Your task to perform on an android device: View the shopping cart on ebay. Image 0: 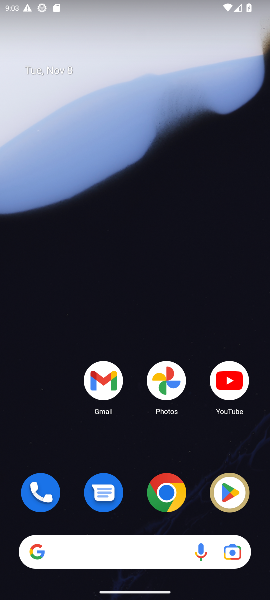
Step 0: click (177, 499)
Your task to perform on an android device: View the shopping cart on ebay. Image 1: 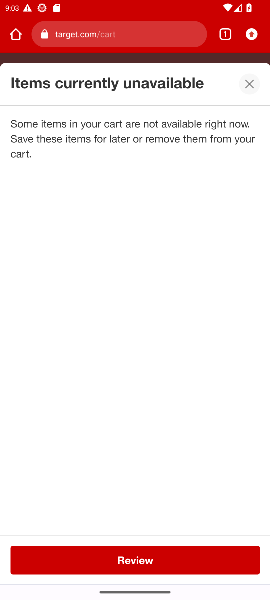
Step 1: click (113, 27)
Your task to perform on an android device: View the shopping cart on ebay. Image 2: 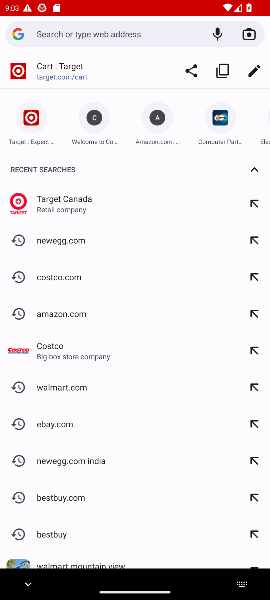
Step 2: click (57, 420)
Your task to perform on an android device: View the shopping cart on ebay. Image 3: 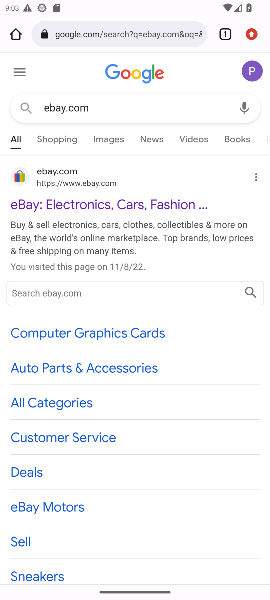
Step 3: click (85, 181)
Your task to perform on an android device: View the shopping cart on ebay. Image 4: 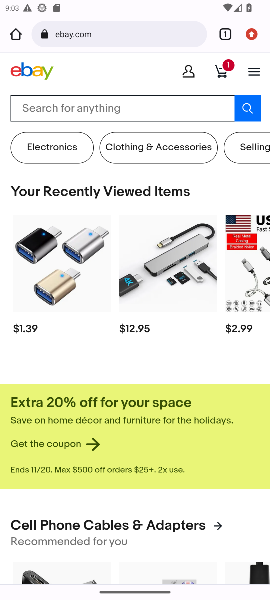
Step 4: click (221, 72)
Your task to perform on an android device: View the shopping cart on ebay. Image 5: 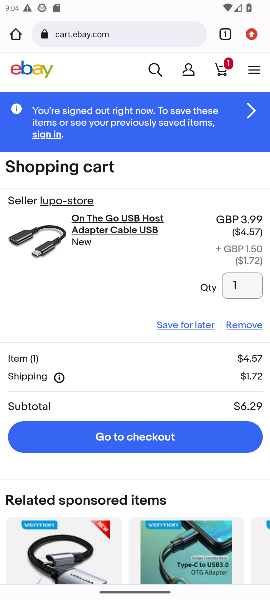
Step 5: task complete